Your task to perform on an android device: turn on airplane mode Image 0: 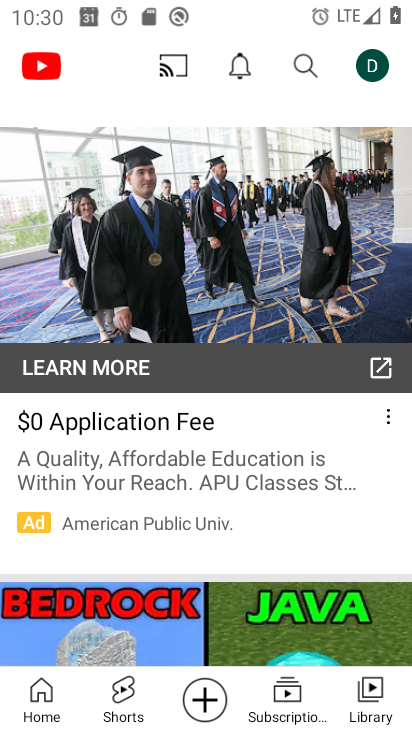
Step 0: press back button
Your task to perform on an android device: turn on airplane mode Image 1: 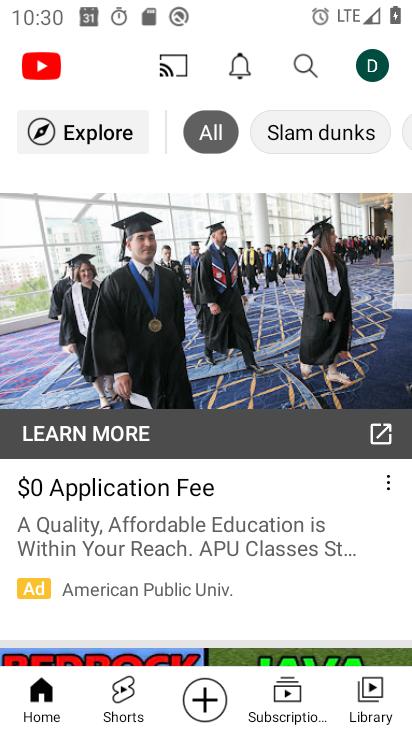
Step 1: press back button
Your task to perform on an android device: turn on airplane mode Image 2: 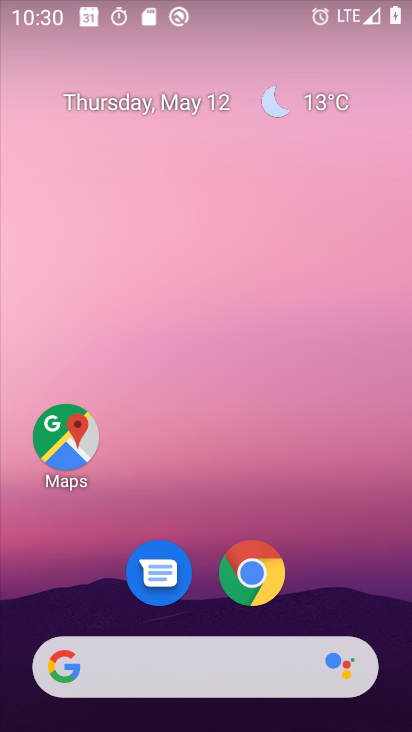
Step 2: drag from (401, 454) to (382, 235)
Your task to perform on an android device: turn on airplane mode Image 3: 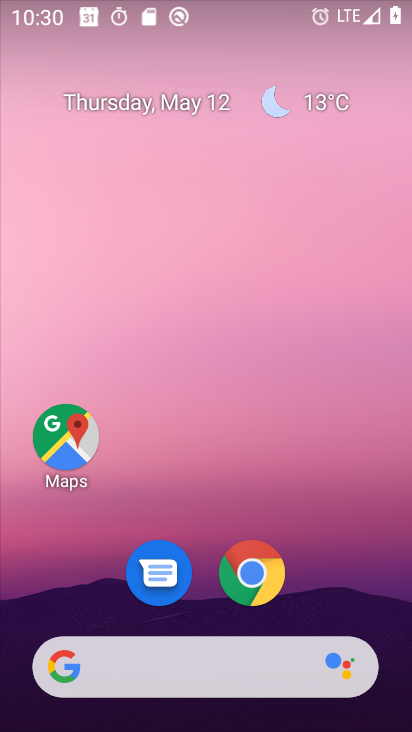
Step 3: drag from (371, 272) to (369, 225)
Your task to perform on an android device: turn on airplane mode Image 4: 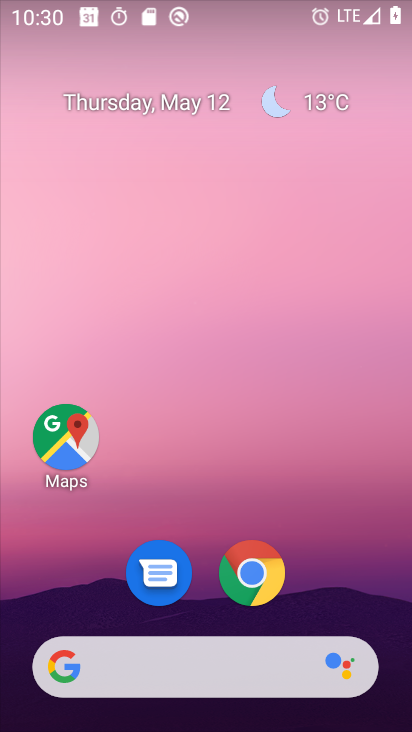
Step 4: drag from (385, 373) to (368, 271)
Your task to perform on an android device: turn on airplane mode Image 5: 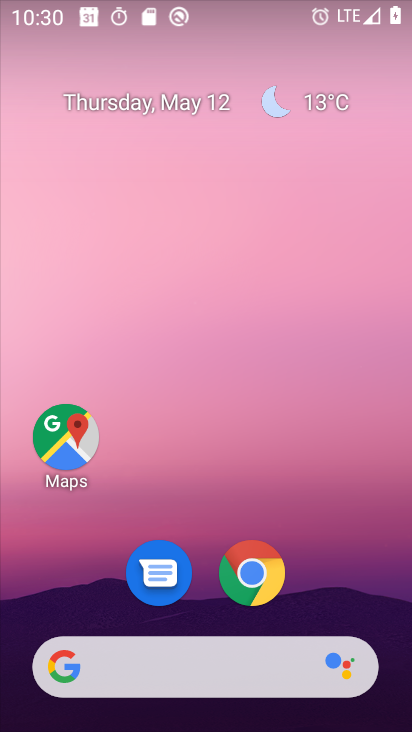
Step 5: drag from (398, 687) to (392, 259)
Your task to perform on an android device: turn on airplane mode Image 6: 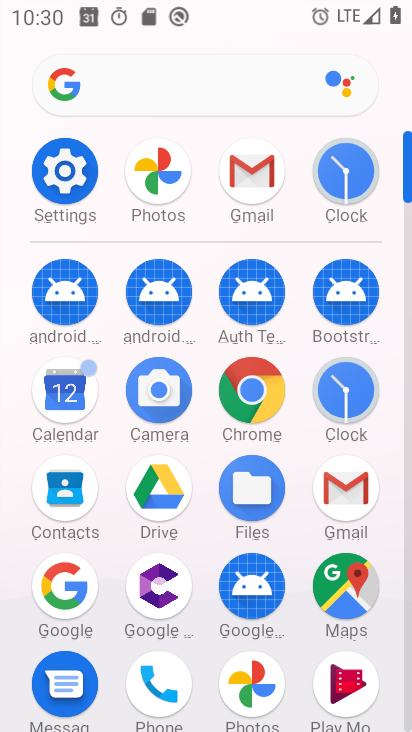
Step 6: click (56, 159)
Your task to perform on an android device: turn on airplane mode Image 7: 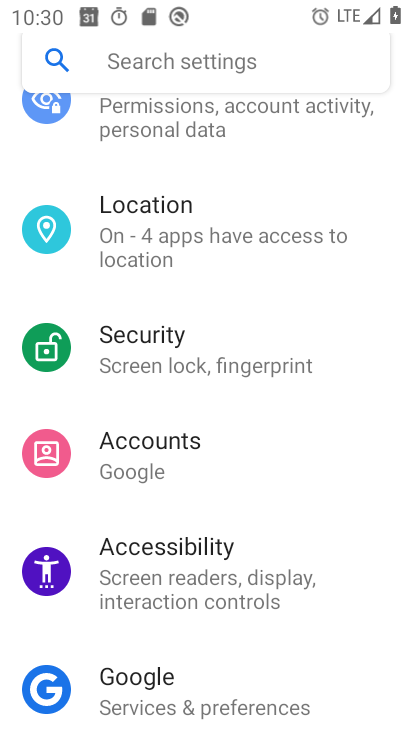
Step 7: drag from (327, 133) to (333, 402)
Your task to perform on an android device: turn on airplane mode Image 8: 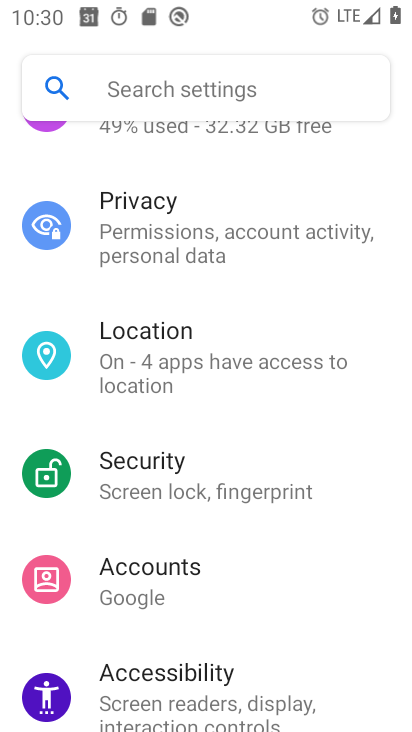
Step 8: drag from (373, 149) to (356, 550)
Your task to perform on an android device: turn on airplane mode Image 9: 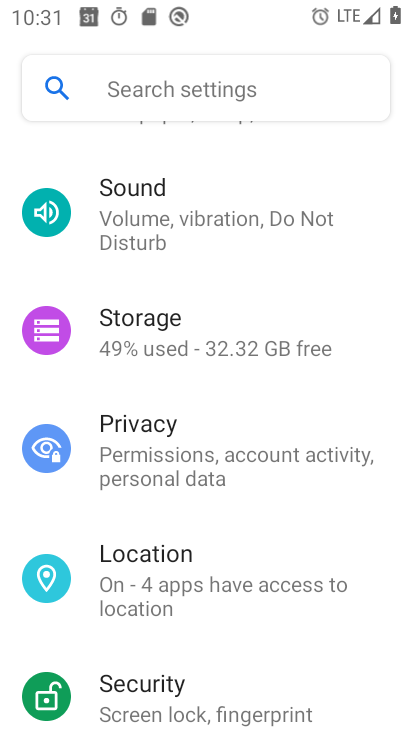
Step 9: drag from (290, 215) to (295, 616)
Your task to perform on an android device: turn on airplane mode Image 10: 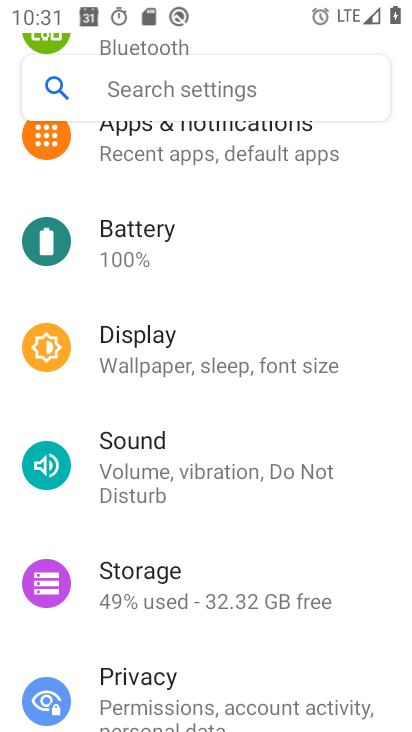
Step 10: drag from (348, 226) to (357, 641)
Your task to perform on an android device: turn on airplane mode Image 11: 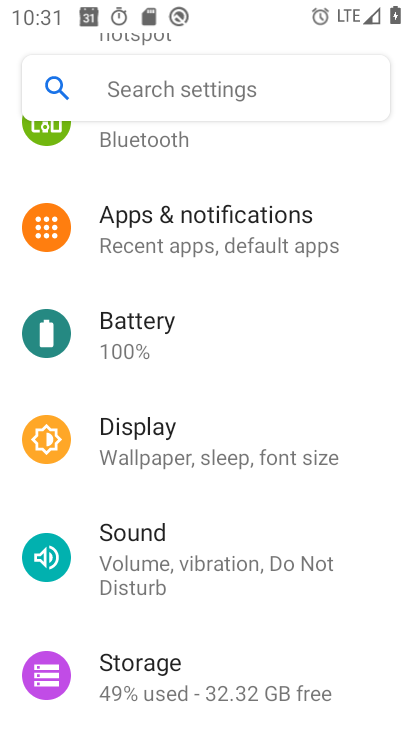
Step 11: drag from (338, 406) to (330, 503)
Your task to perform on an android device: turn on airplane mode Image 12: 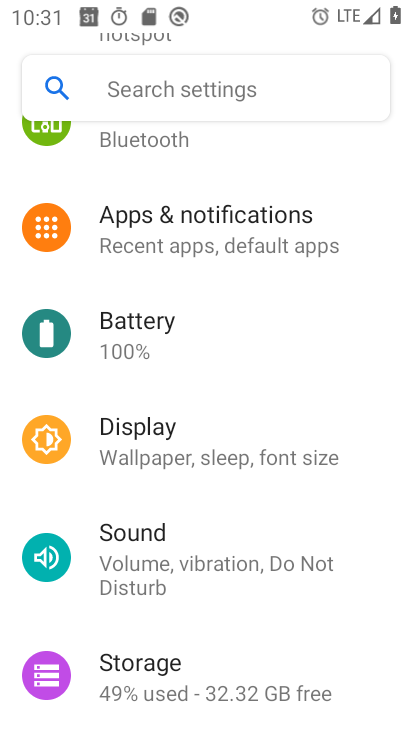
Step 12: drag from (341, 256) to (311, 466)
Your task to perform on an android device: turn on airplane mode Image 13: 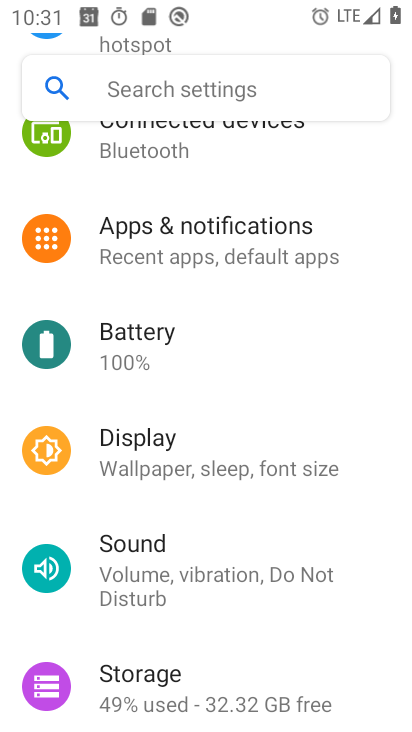
Step 13: drag from (336, 202) to (319, 495)
Your task to perform on an android device: turn on airplane mode Image 14: 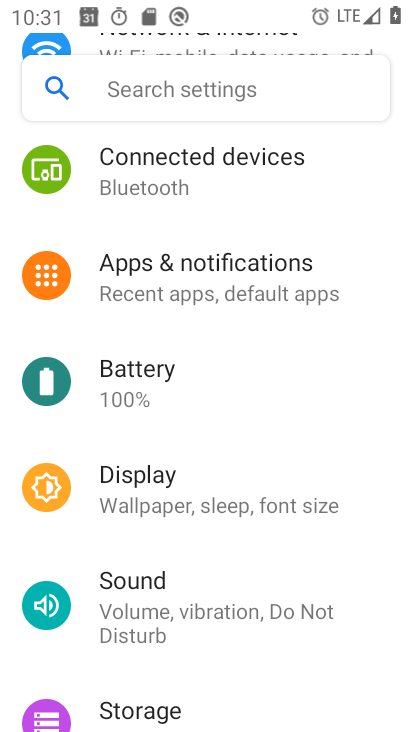
Step 14: drag from (361, 148) to (351, 528)
Your task to perform on an android device: turn on airplane mode Image 15: 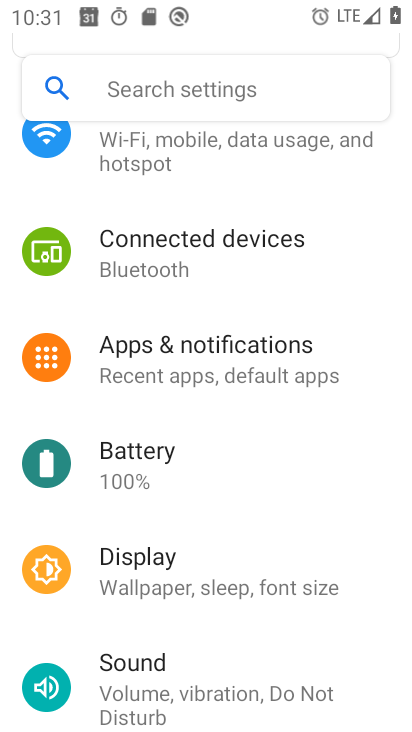
Step 15: drag from (371, 173) to (351, 546)
Your task to perform on an android device: turn on airplane mode Image 16: 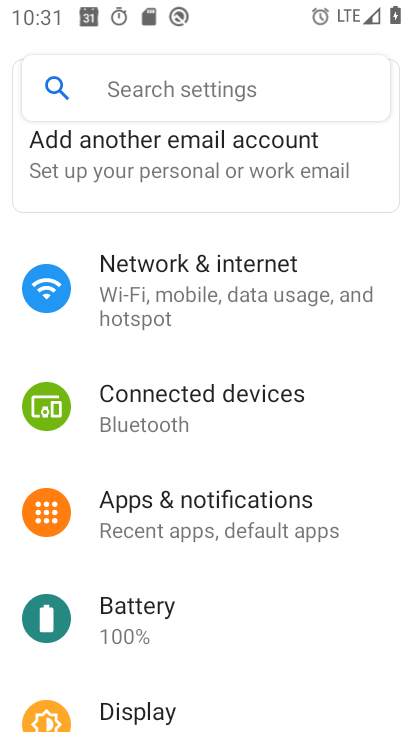
Step 16: click (163, 279)
Your task to perform on an android device: turn on airplane mode Image 17: 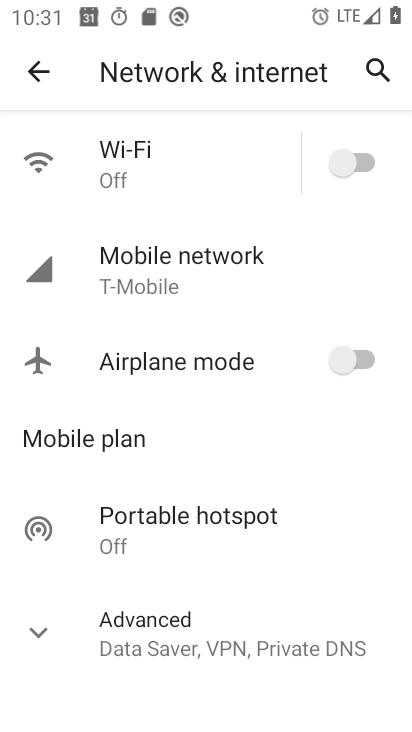
Step 17: click (368, 362)
Your task to perform on an android device: turn on airplane mode Image 18: 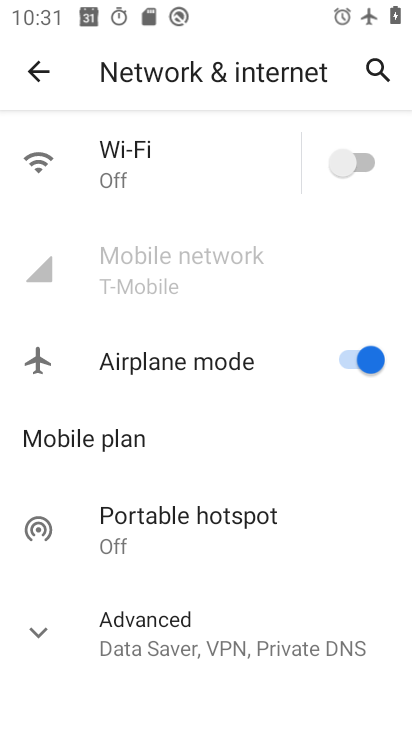
Step 18: task complete